Your task to perform on an android device: Open Google Chrome and click the shortcut for Amazon.com Image 0: 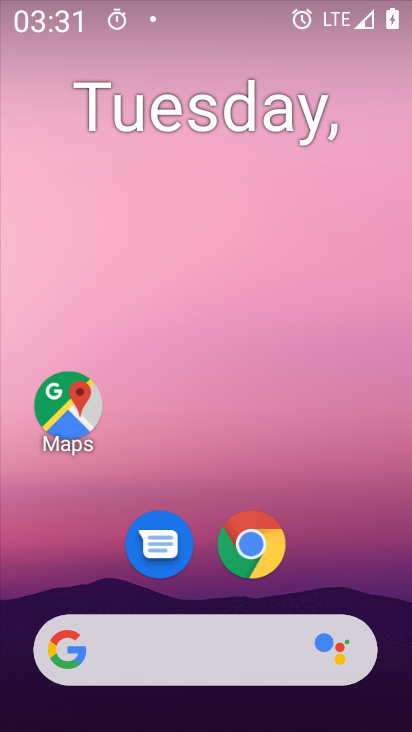
Step 0: drag from (324, 499) to (185, 3)
Your task to perform on an android device: Open Google Chrome and click the shortcut for Amazon.com Image 1: 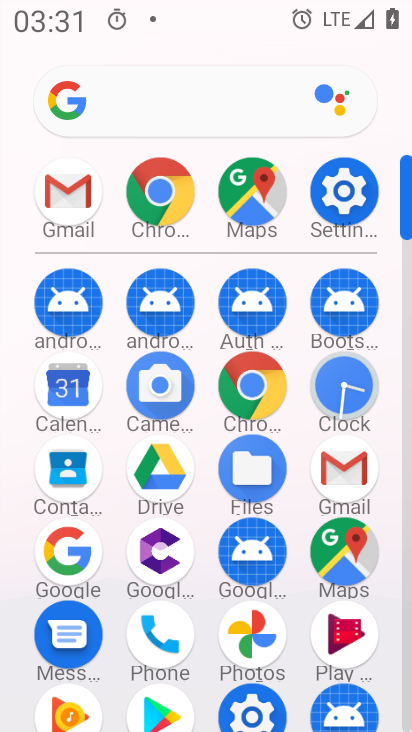
Step 1: drag from (42, 515) to (37, 275)
Your task to perform on an android device: Open Google Chrome and click the shortcut for Amazon.com Image 2: 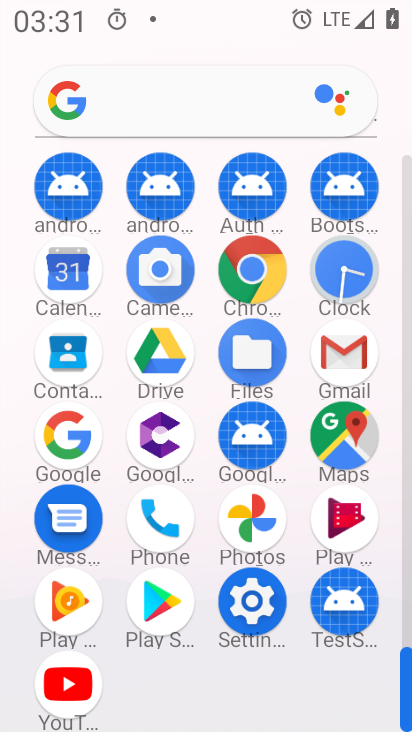
Step 2: click (256, 262)
Your task to perform on an android device: Open Google Chrome and click the shortcut for Amazon.com Image 3: 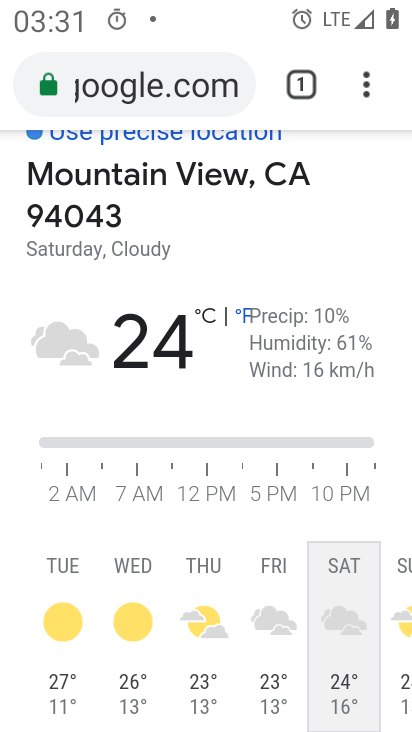
Step 3: click (166, 88)
Your task to perform on an android device: Open Google Chrome and click the shortcut for Amazon.com Image 4: 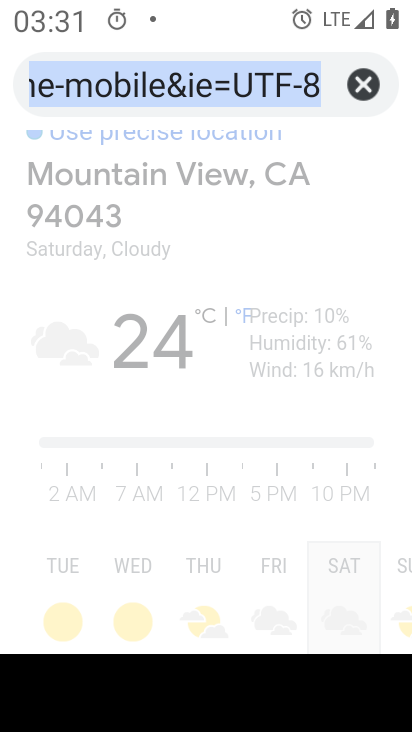
Step 4: click (362, 71)
Your task to perform on an android device: Open Google Chrome and click the shortcut for Amazon.com Image 5: 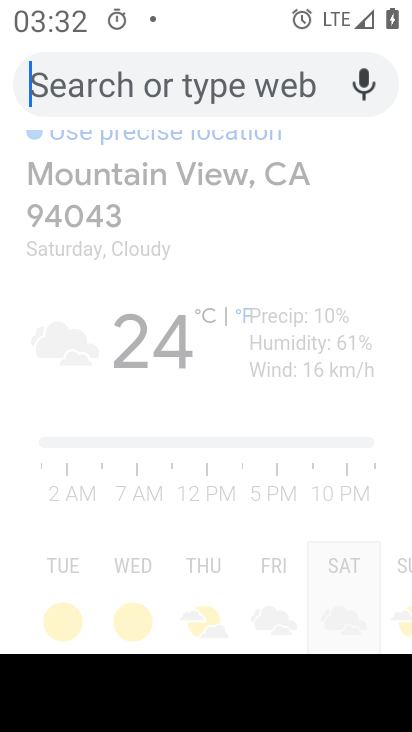
Step 5: type "Amazon.com"
Your task to perform on an android device: Open Google Chrome and click the shortcut for Amazon.com Image 6: 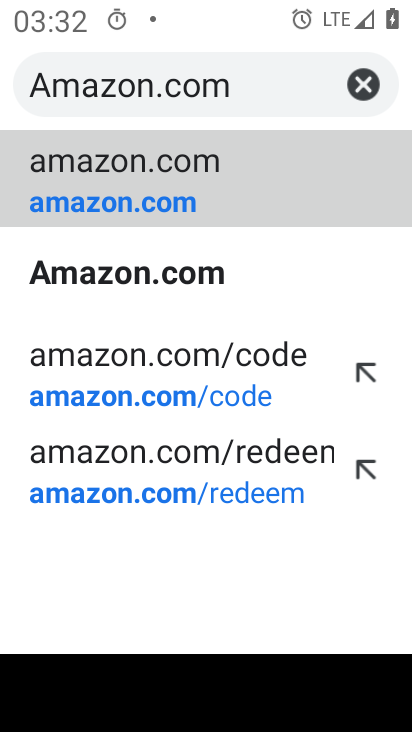
Step 6: click (168, 158)
Your task to perform on an android device: Open Google Chrome and click the shortcut for Amazon.com Image 7: 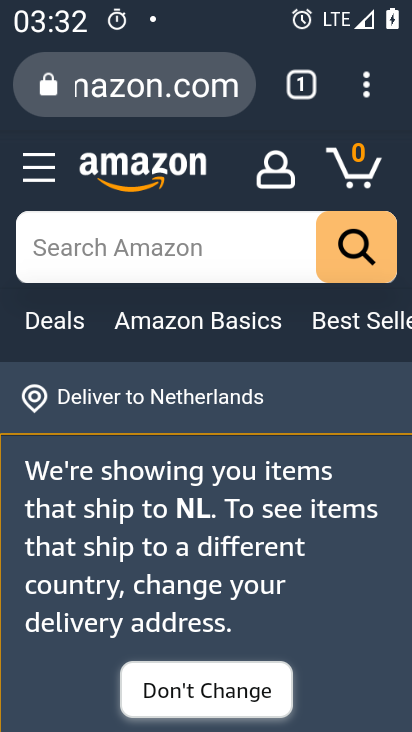
Step 7: task complete